Your task to perform on an android device: Show the shopping cart on bestbuy. Image 0: 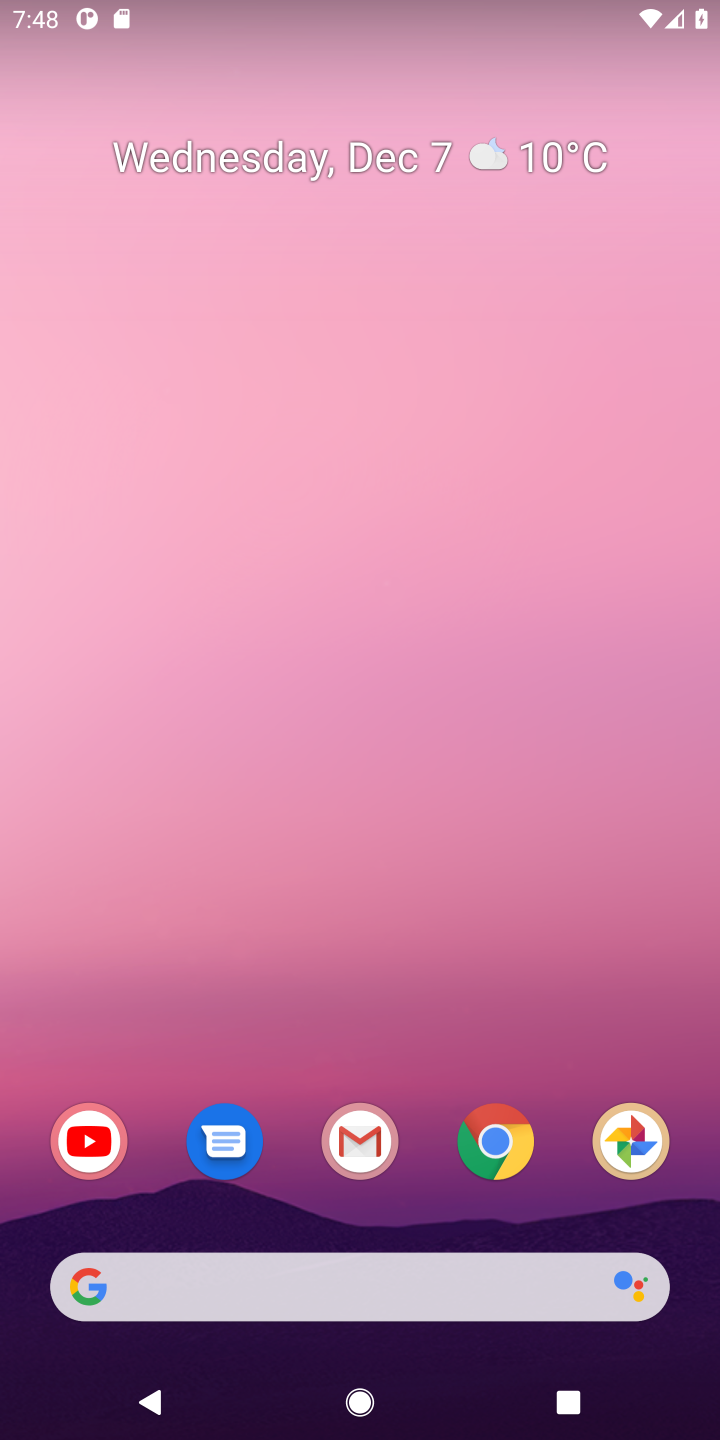
Step 0: press home button
Your task to perform on an android device: Show the shopping cart on bestbuy. Image 1: 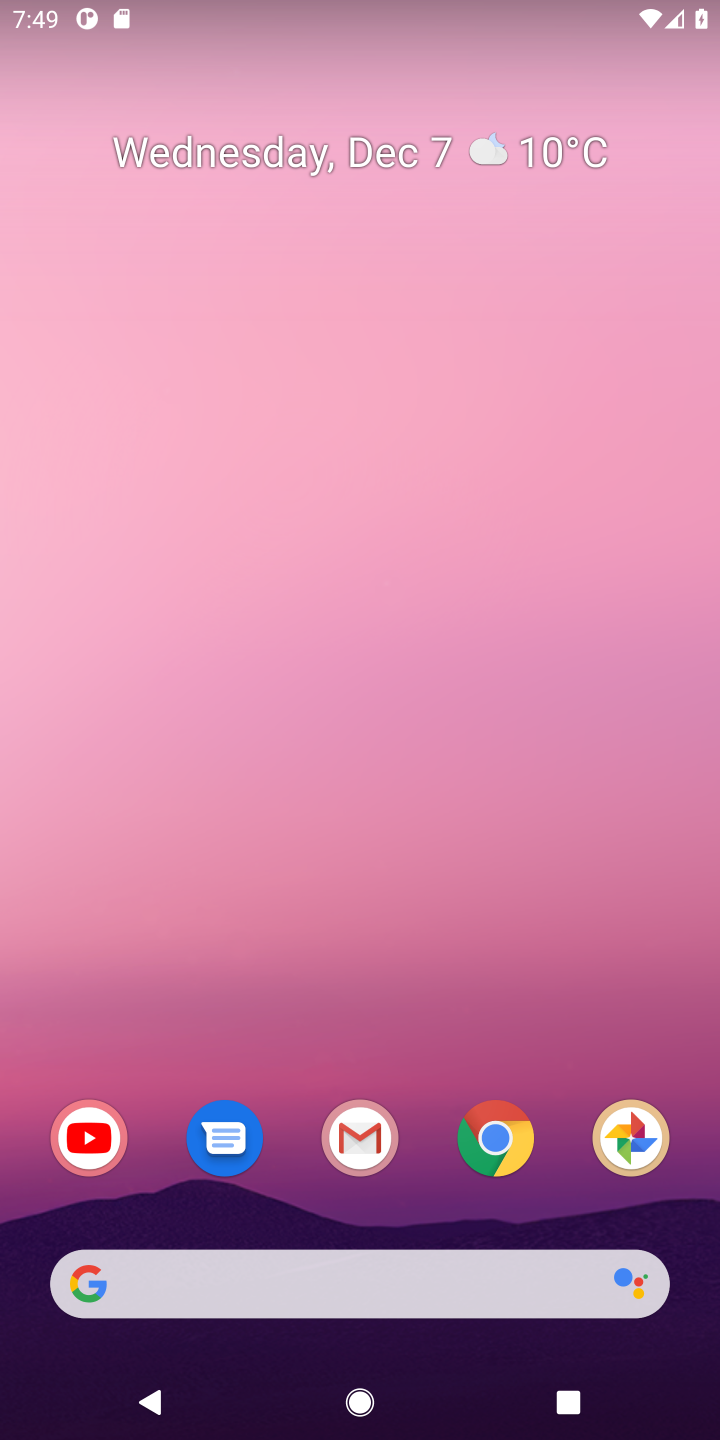
Step 1: click (181, 1285)
Your task to perform on an android device: Show the shopping cart on bestbuy. Image 2: 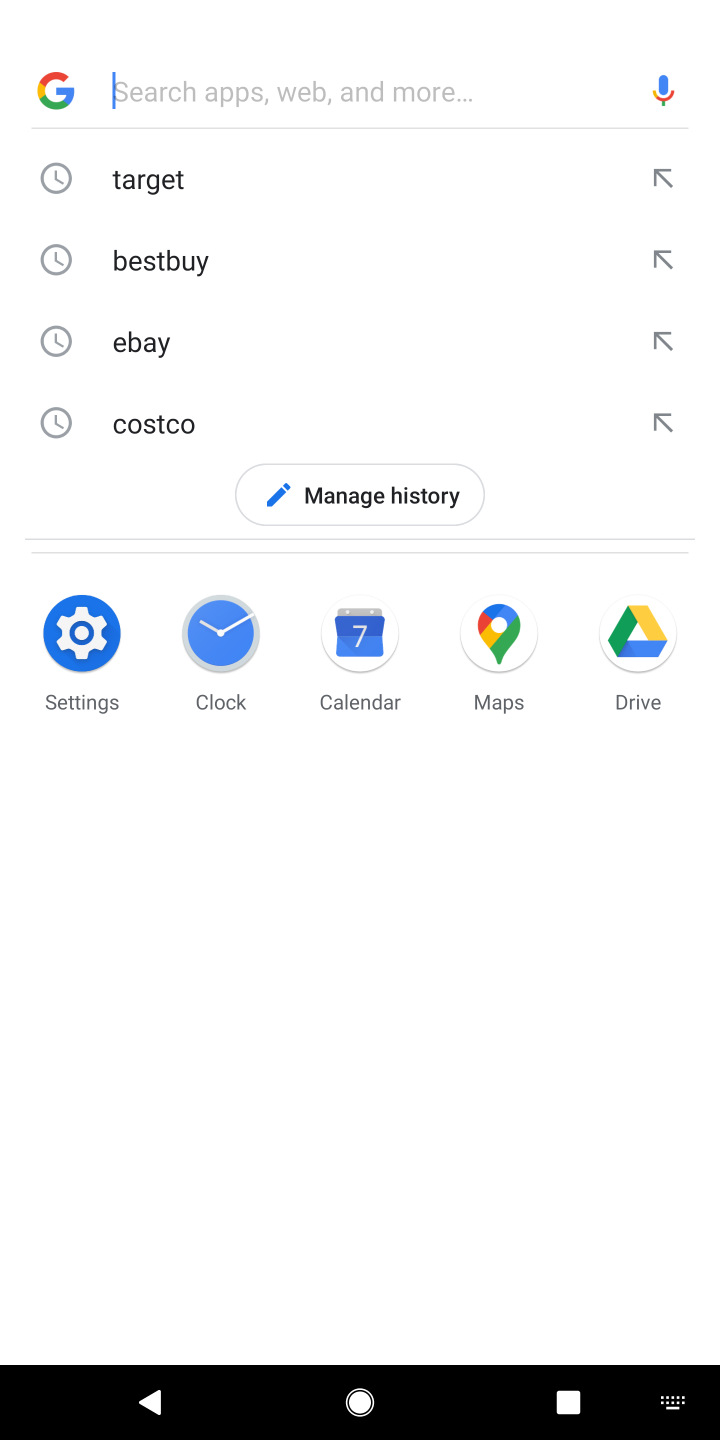
Step 2: type "bestbuy"
Your task to perform on an android device: Show the shopping cart on bestbuy. Image 3: 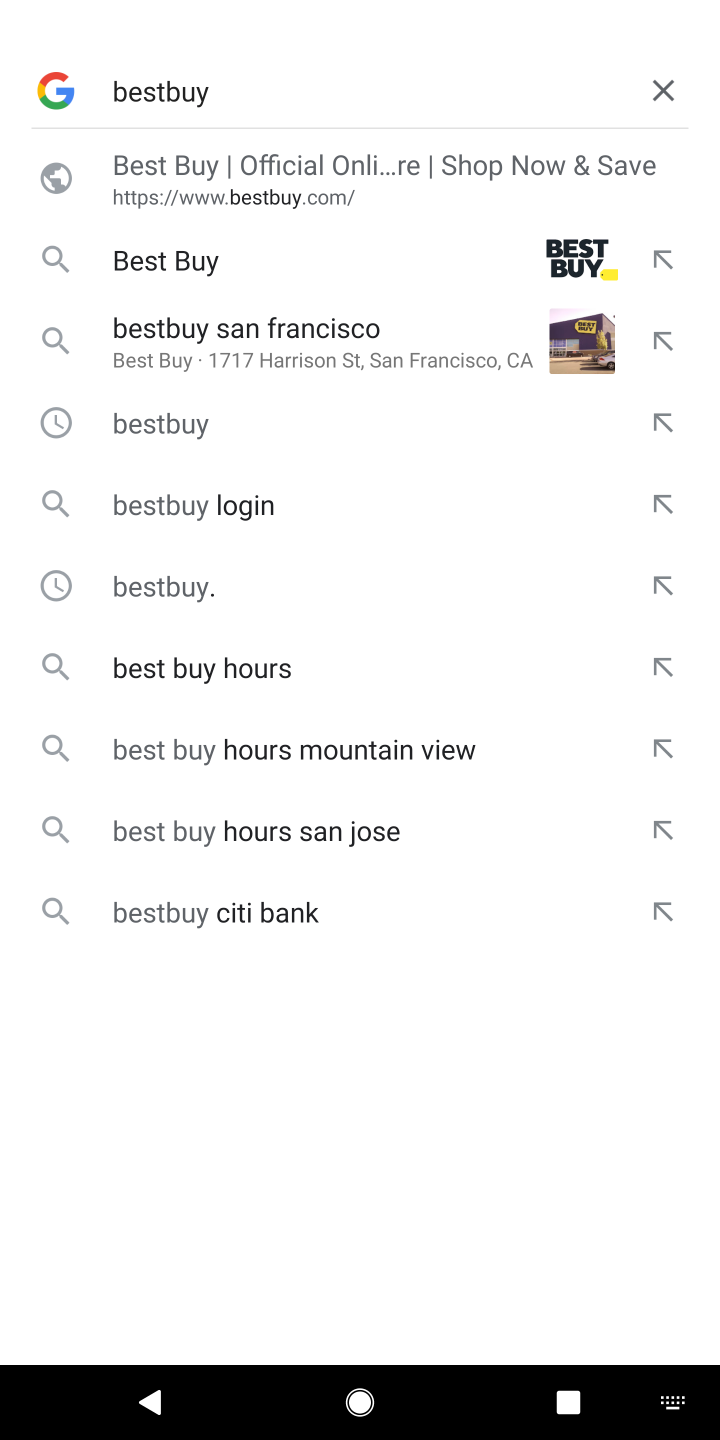
Step 3: press enter
Your task to perform on an android device: Show the shopping cart on bestbuy. Image 4: 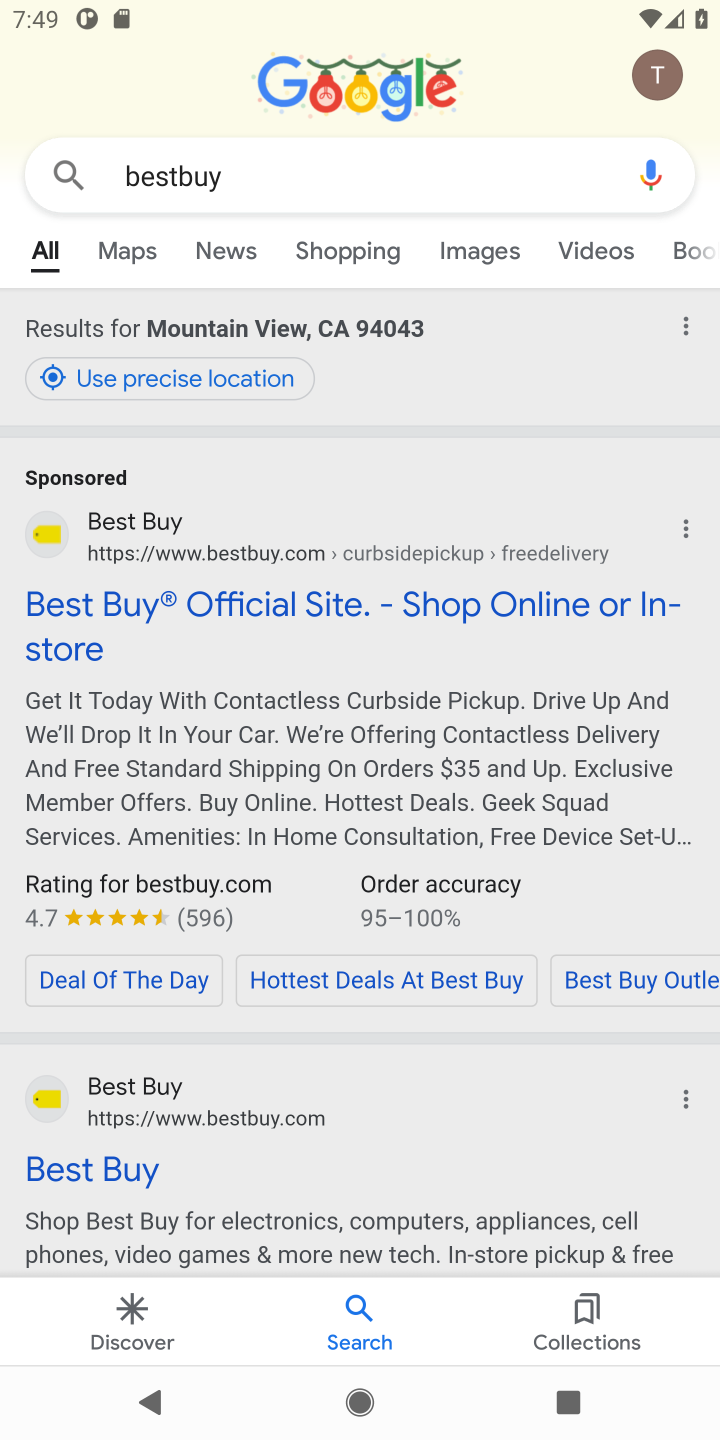
Step 4: click (228, 602)
Your task to perform on an android device: Show the shopping cart on bestbuy. Image 5: 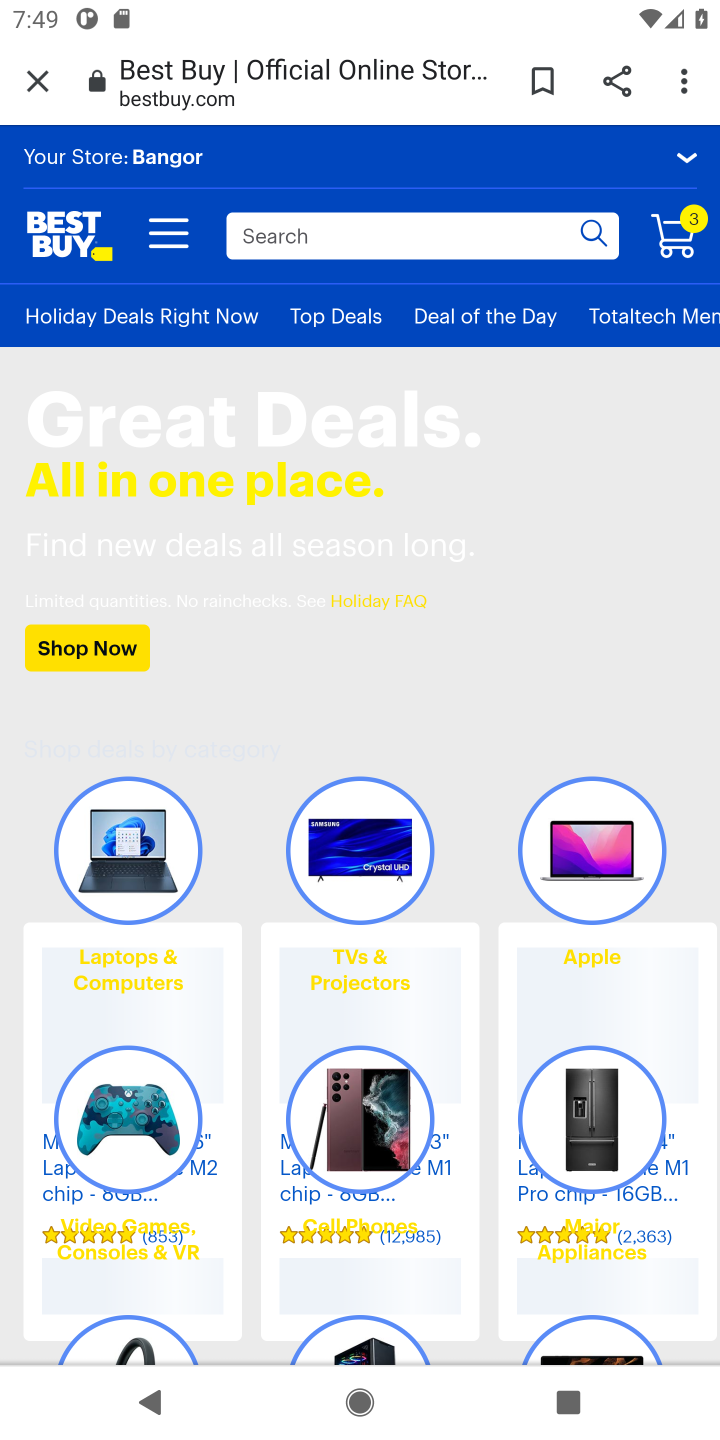
Step 5: click (683, 222)
Your task to perform on an android device: Show the shopping cart on bestbuy. Image 6: 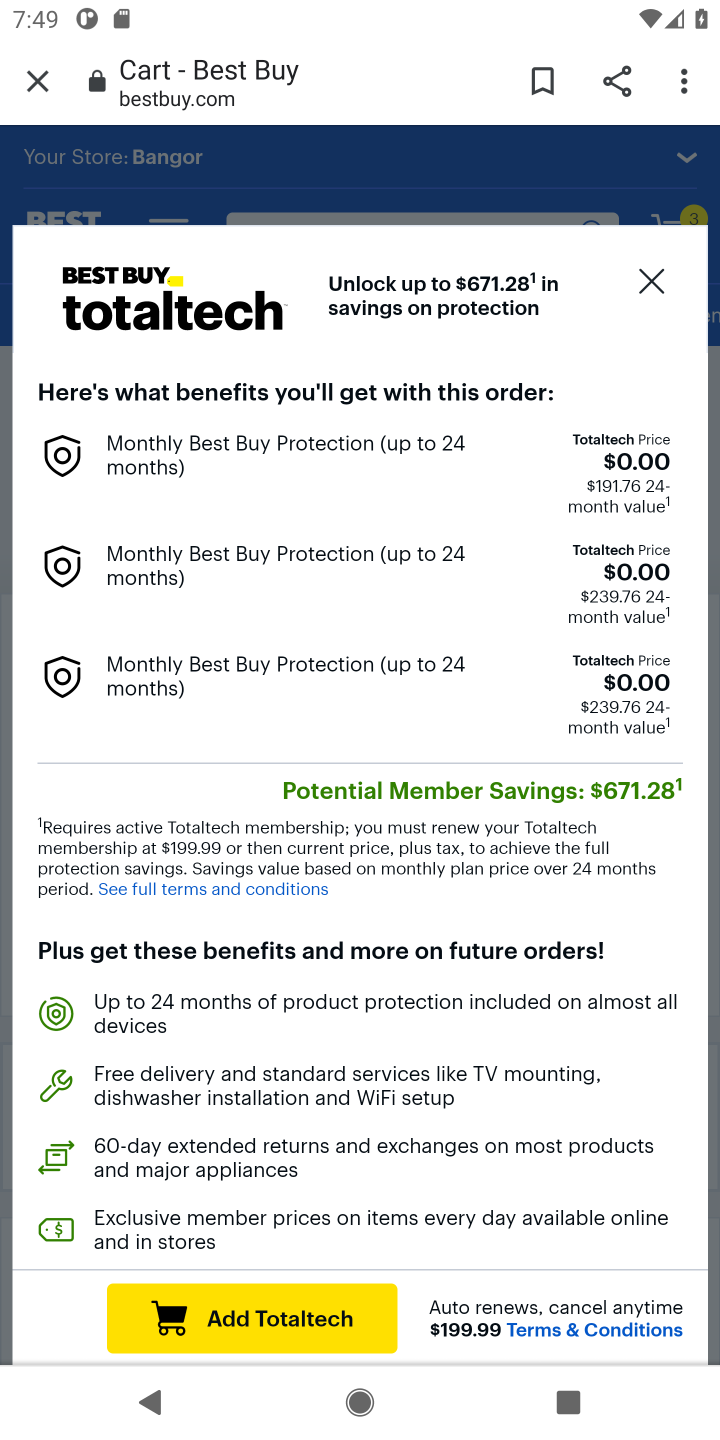
Step 6: click (648, 281)
Your task to perform on an android device: Show the shopping cart on bestbuy. Image 7: 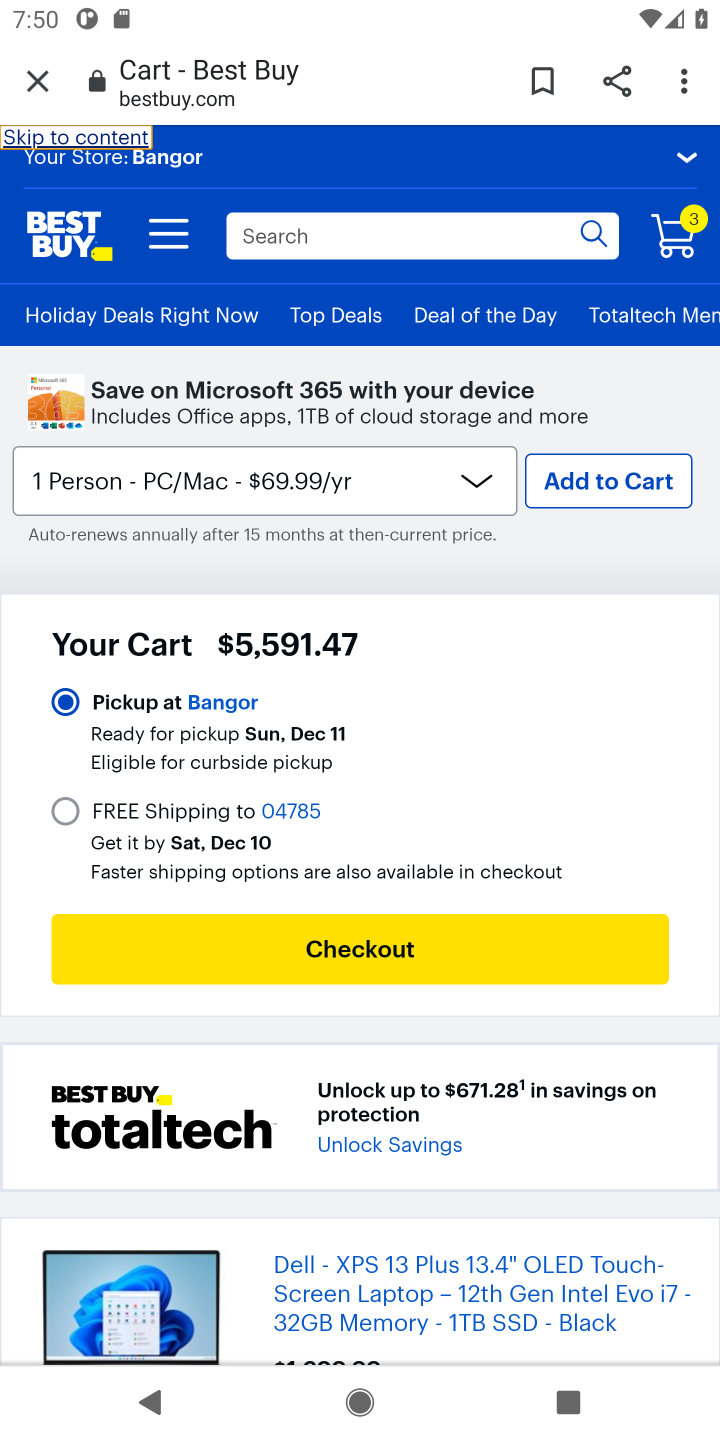
Step 7: task complete